Your task to perform on an android device: Open Youtube and go to "Your channel" Image 0: 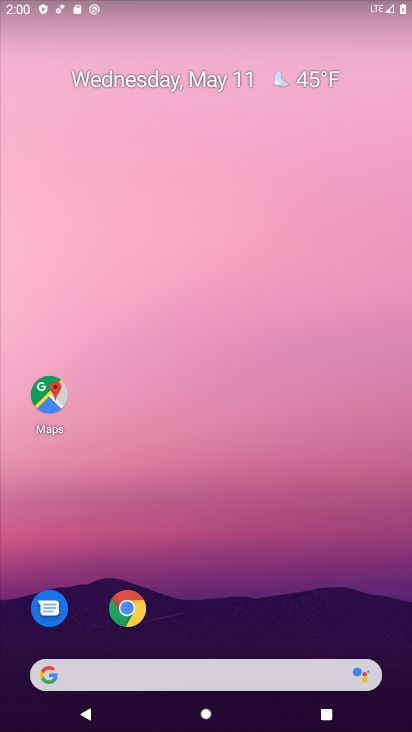
Step 0: drag from (238, 603) to (231, 74)
Your task to perform on an android device: Open Youtube and go to "Your channel" Image 1: 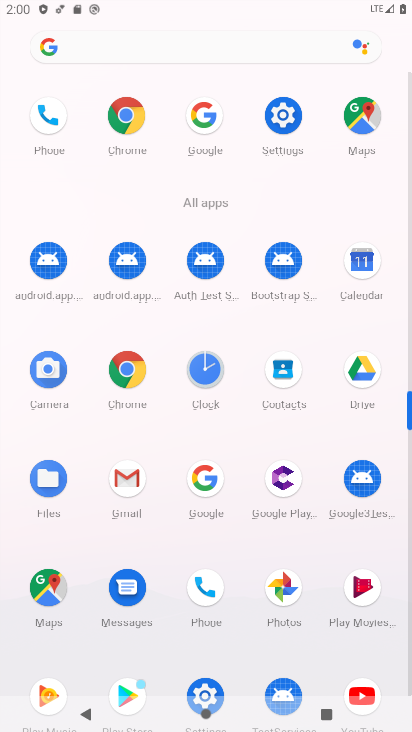
Step 1: drag from (239, 572) to (250, 221)
Your task to perform on an android device: Open Youtube and go to "Your channel" Image 2: 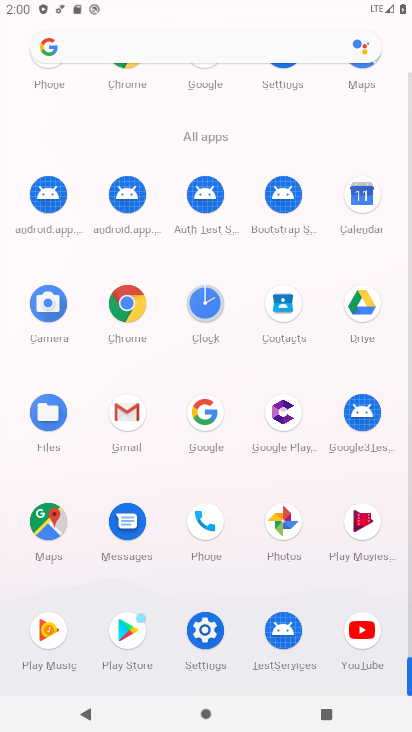
Step 2: click (363, 606)
Your task to perform on an android device: Open Youtube and go to "Your channel" Image 3: 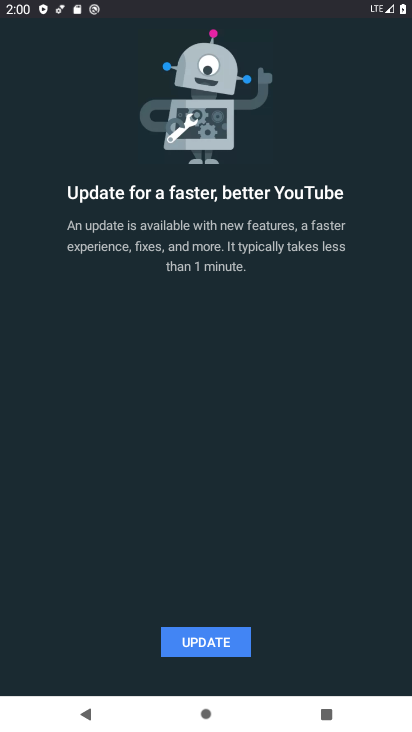
Step 3: click (200, 643)
Your task to perform on an android device: Open Youtube and go to "Your channel" Image 4: 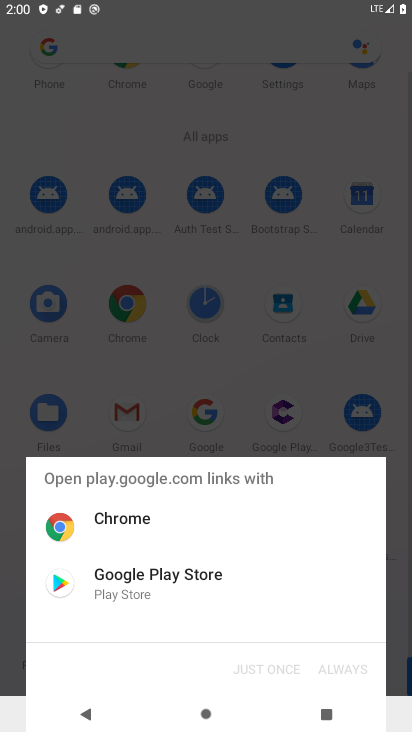
Step 4: click (128, 586)
Your task to perform on an android device: Open Youtube and go to "Your channel" Image 5: 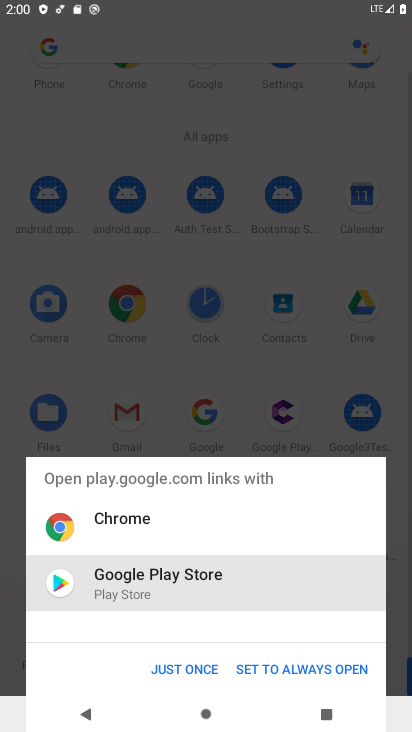
Step 5: click (191, 665)
Your task to perform on an android device: Open Youtube and go to "Your channel" Image 6: 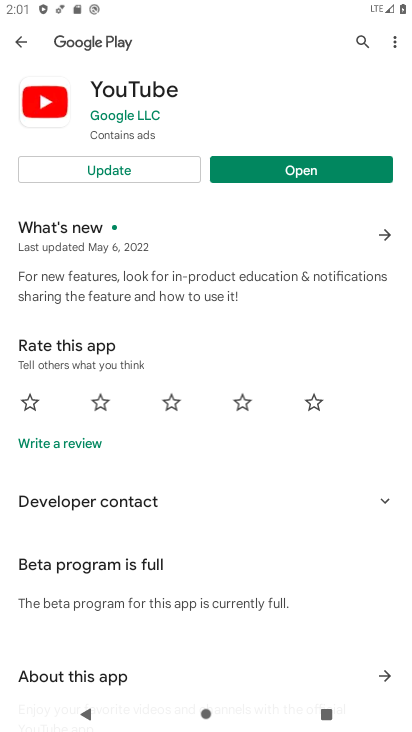
Step 6: click (154, 170)
Your task to perform on an android device: Open Youtube and go to "Your channel" Image 7: 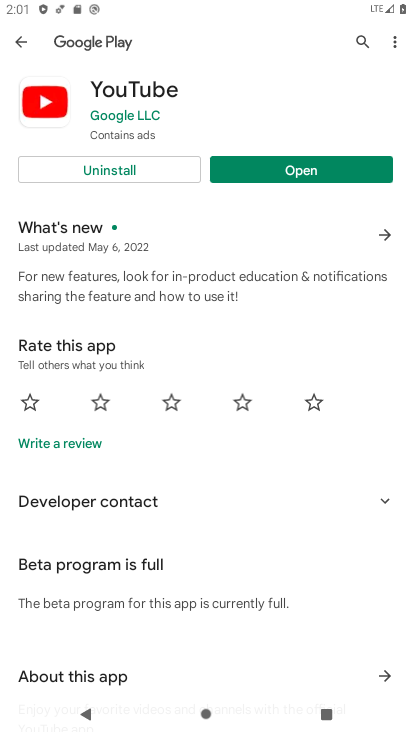
Step 7: click (267, 172)
Your task to perform on an android device: Open Youtube and go to "Your channel" Image 8: 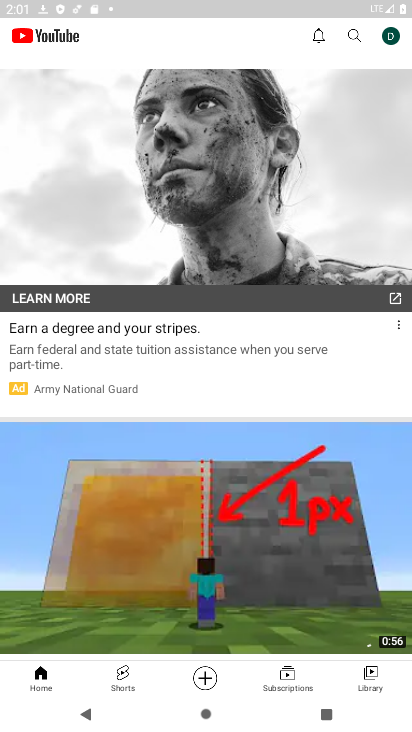
Step 8: click (387, 40)
Your task to perform on an android device: Open Youtube and go to "Your channel" Image 9: 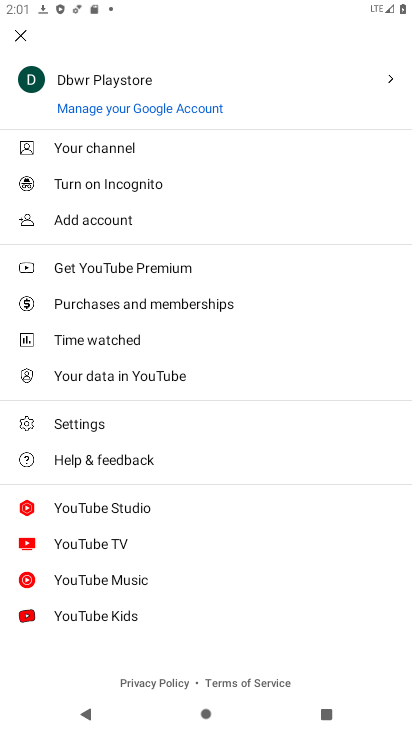
Step 9: click (112, 157)
Your task to perform on an android device: Open Youtube and go to "Your channel" Image 10: 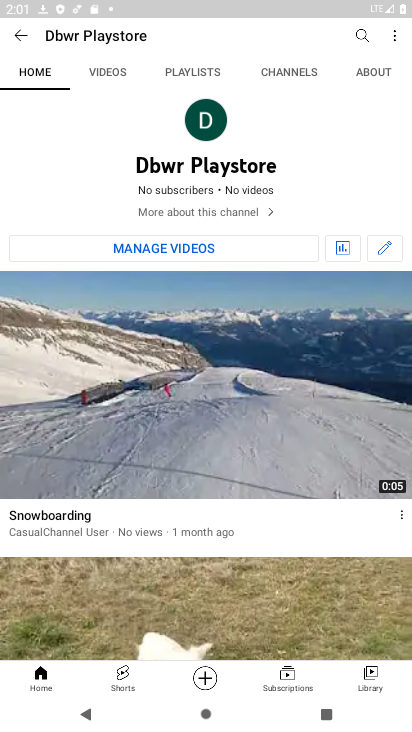
Step 10: task complete